Your task to perform on an android device: install app "Gmail" Image 0: 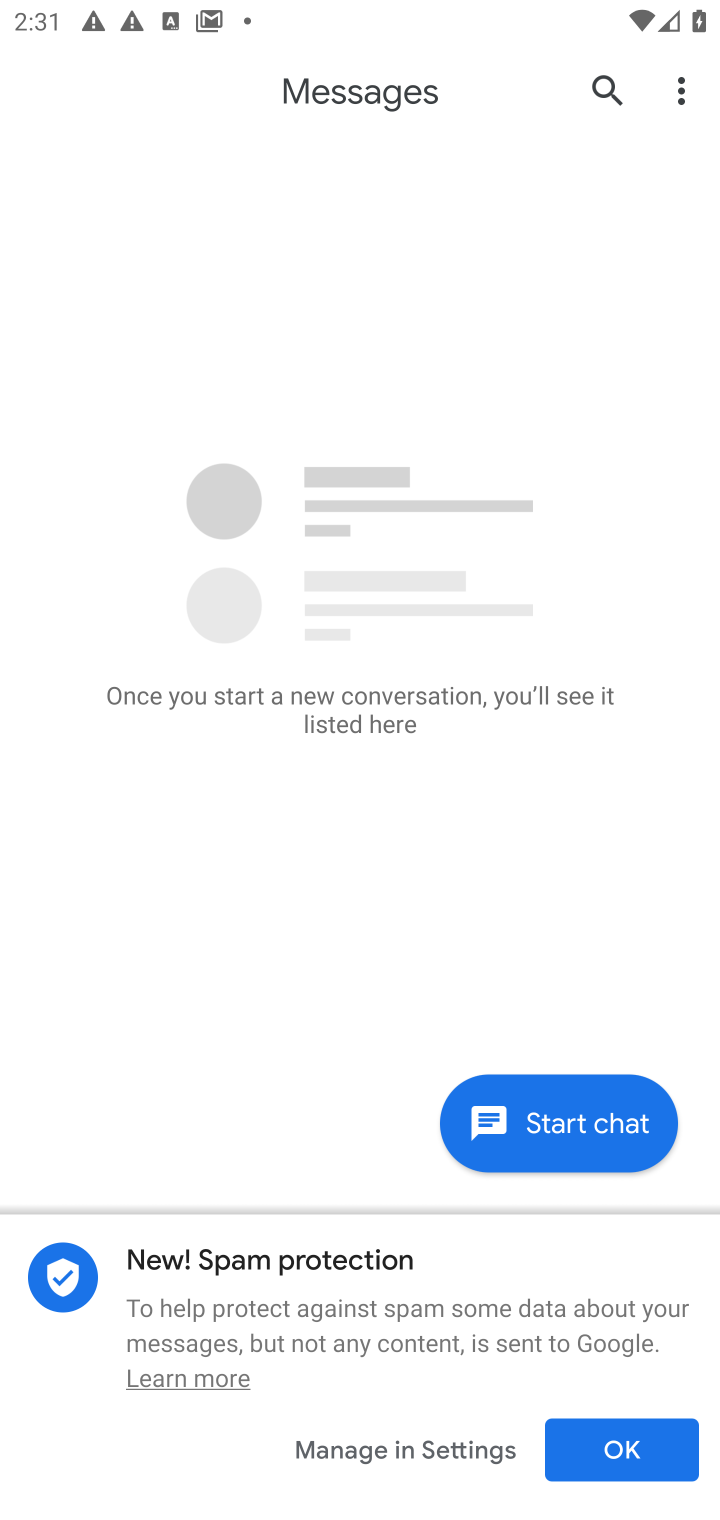
Step 0: press home button
Your task to perform on an android device: install app "Gmail" Image 1: 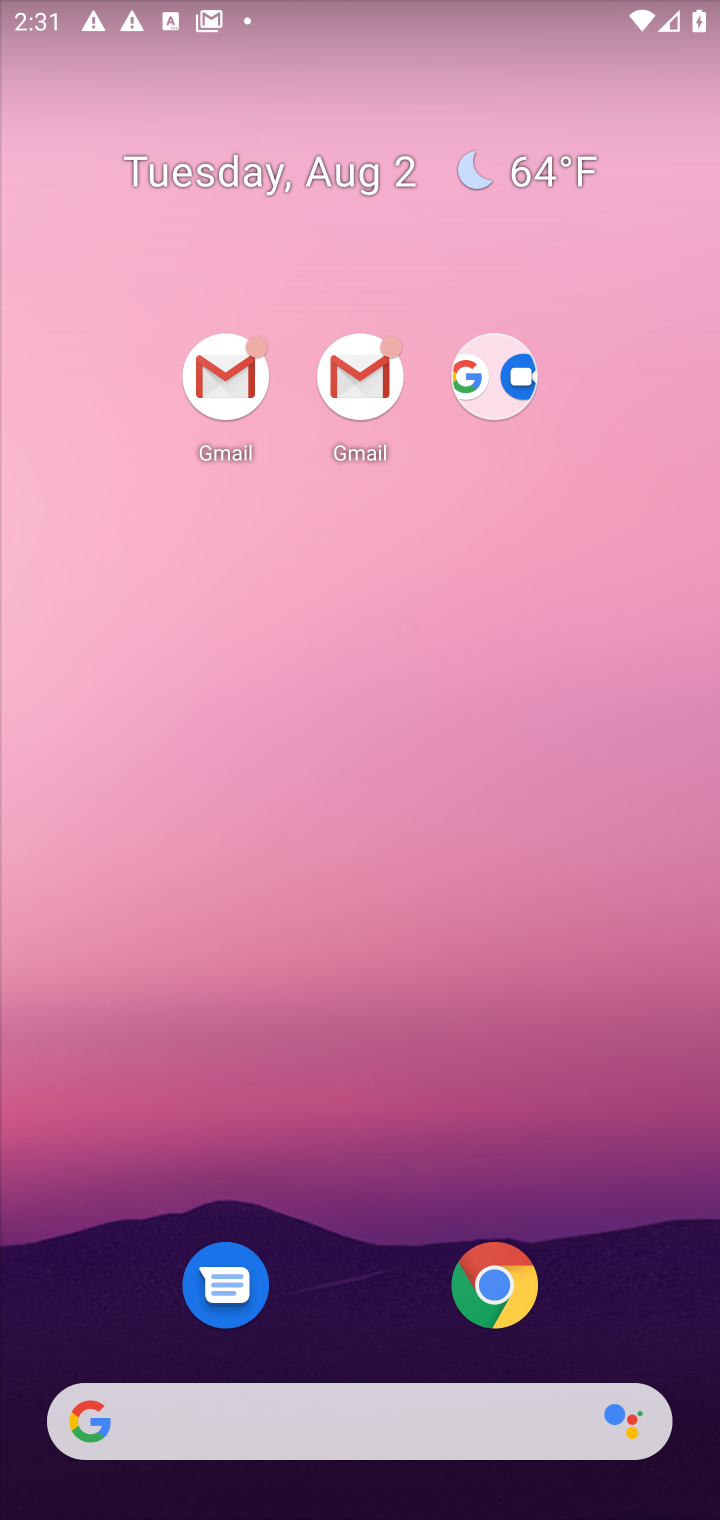
Step 1: drag from (383, 1297) to (522, 119)
Your task to perform on an android device: install app "Gmail" Image 2: 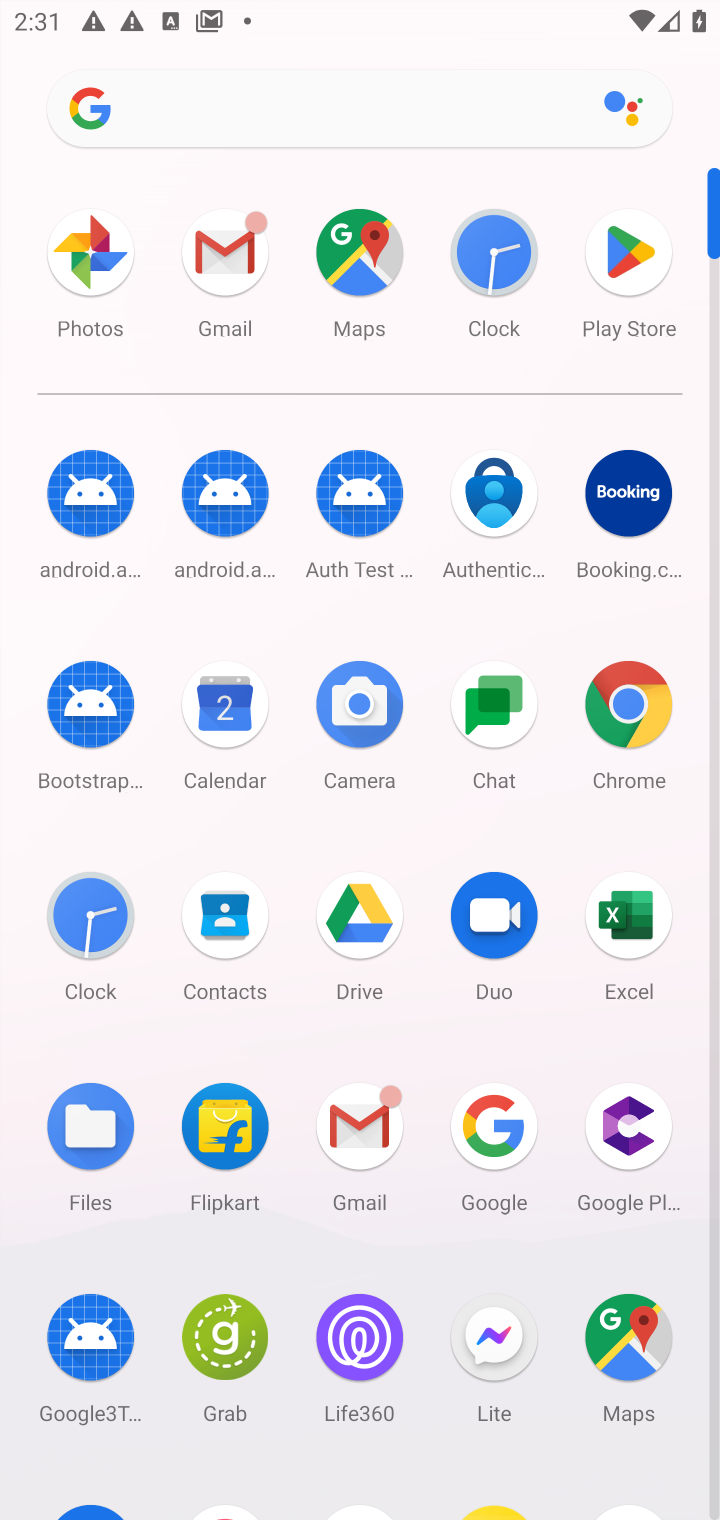
Step 2: drag from (441, 1084) to (499, 550)
Your task to perform on an android device: install app "Gmail" Image 3: 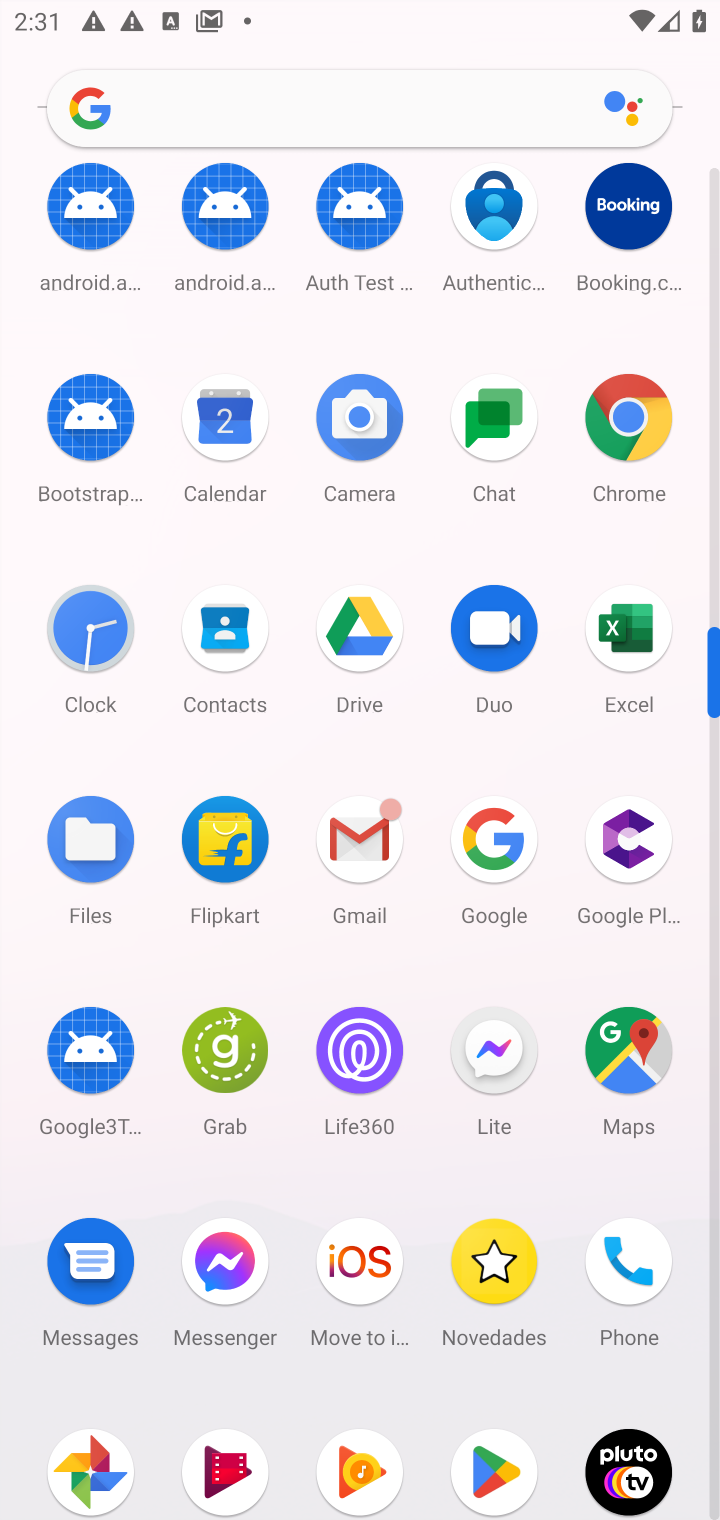
Step 3: click (508, 1466)
Your task to perform on an android device: install app "Gmail" Image 4: 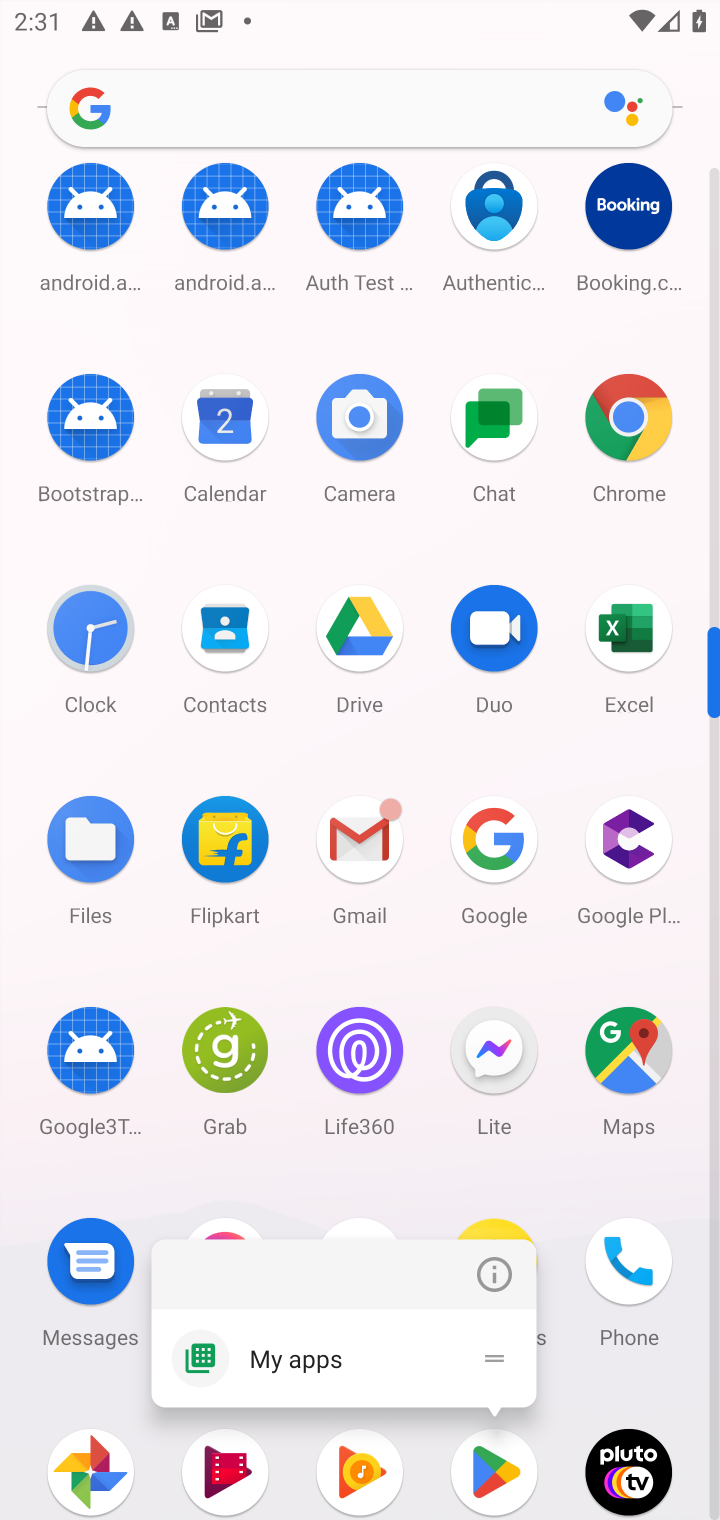
Step 4: click (489, 1451)
Your task to perform on an android device: install app "Gmail" Image 5: 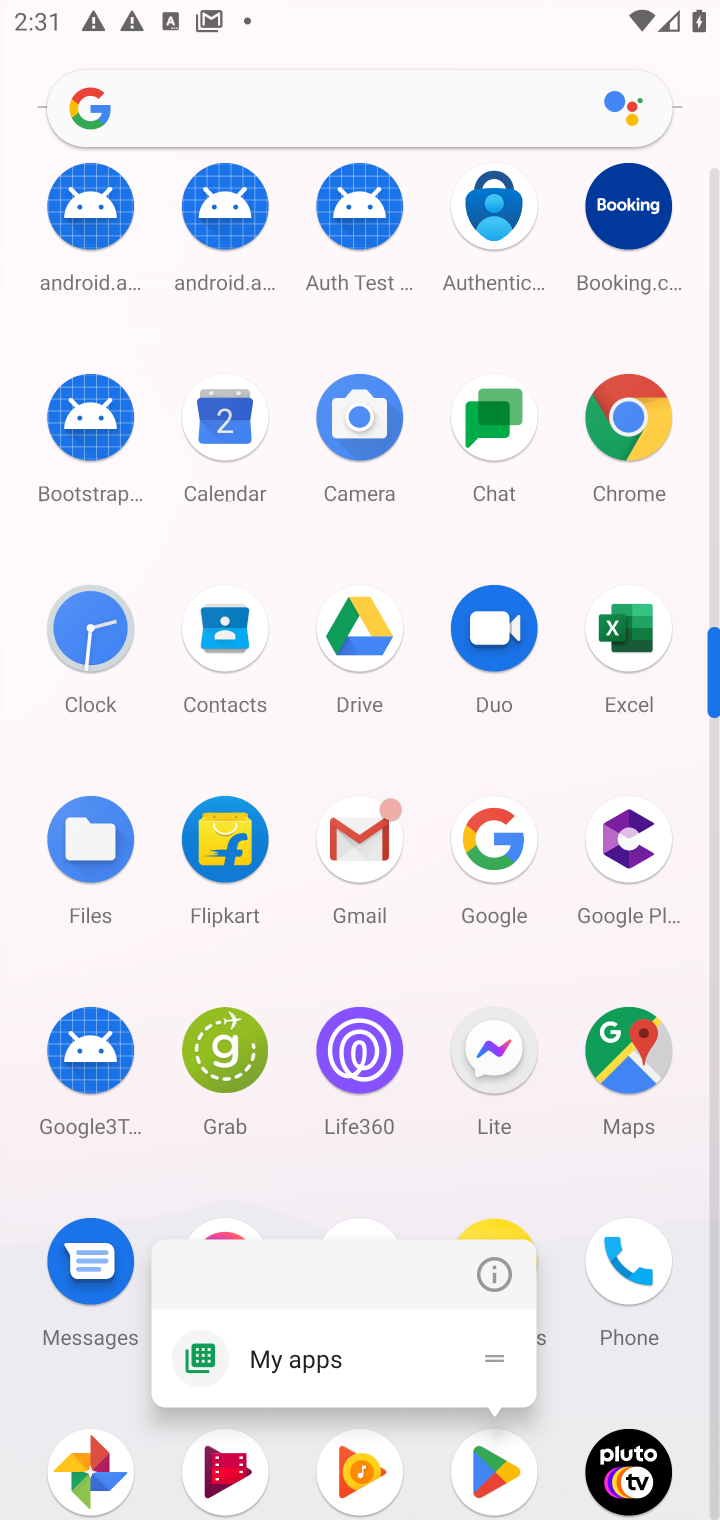
Step 5: click (494, 1475)
Your task to perform on an android device: install app "Gmail" Image 6: 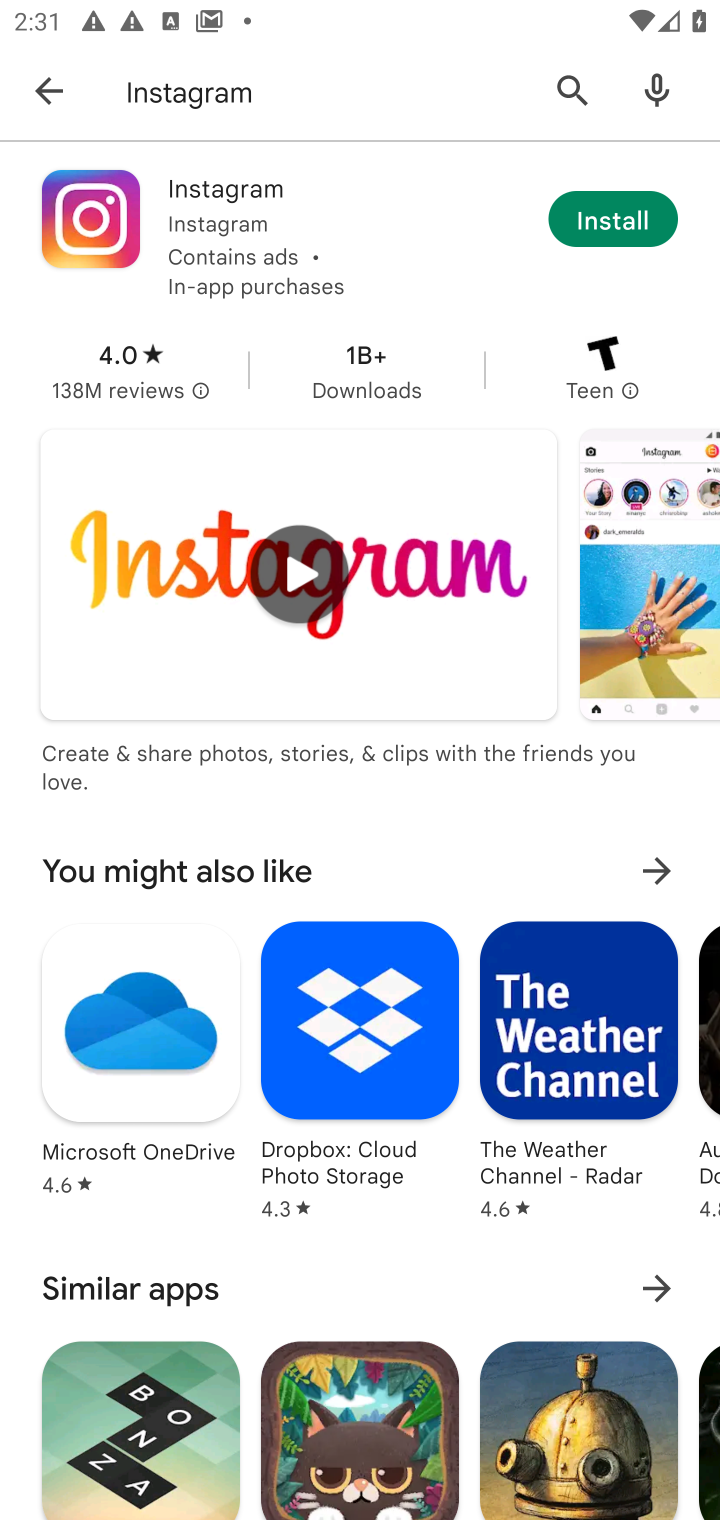
Step 6: click (409, 92)
Your task to perform on an android device: install app "Gmail" Image 7: 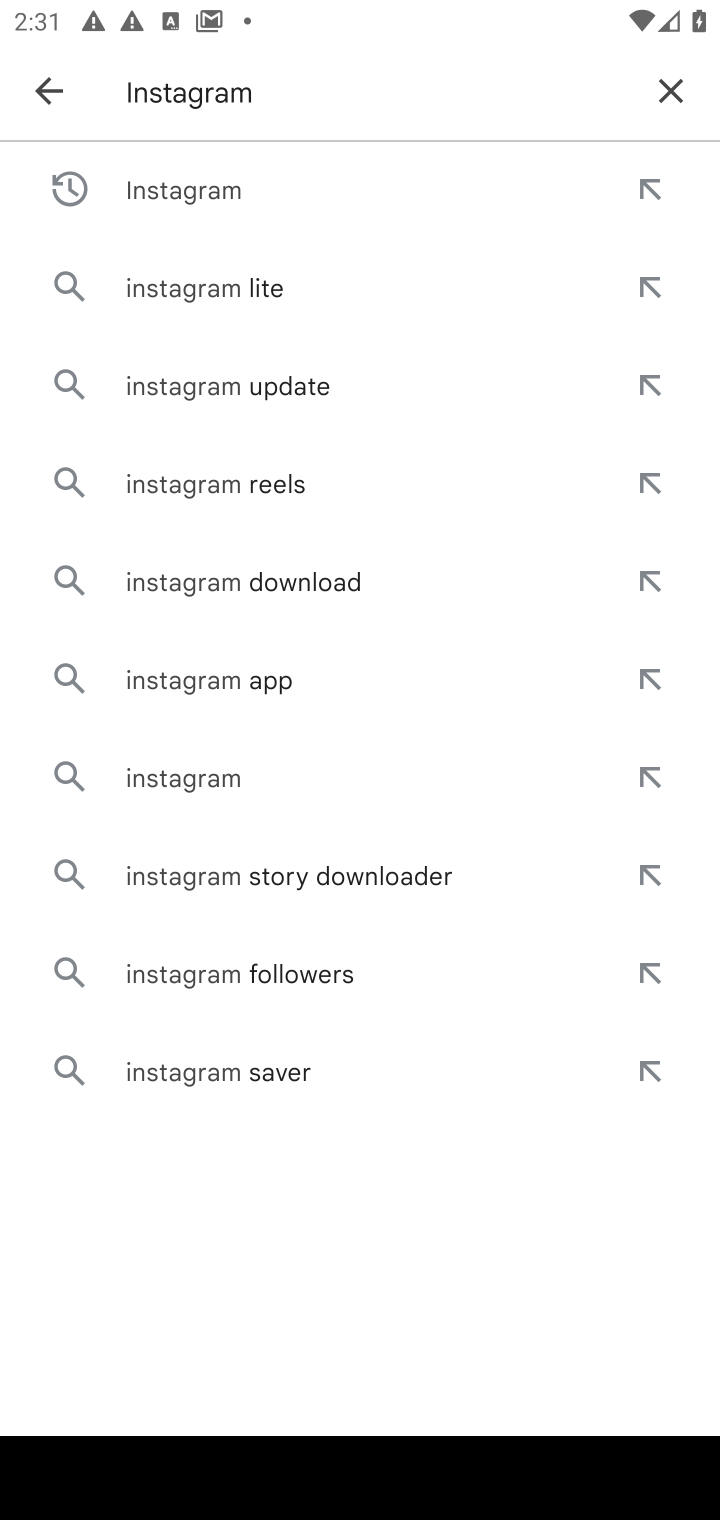
Step 7: click (665, 82)
Your task to perform on an android device: install app "Gmail" Image 8: 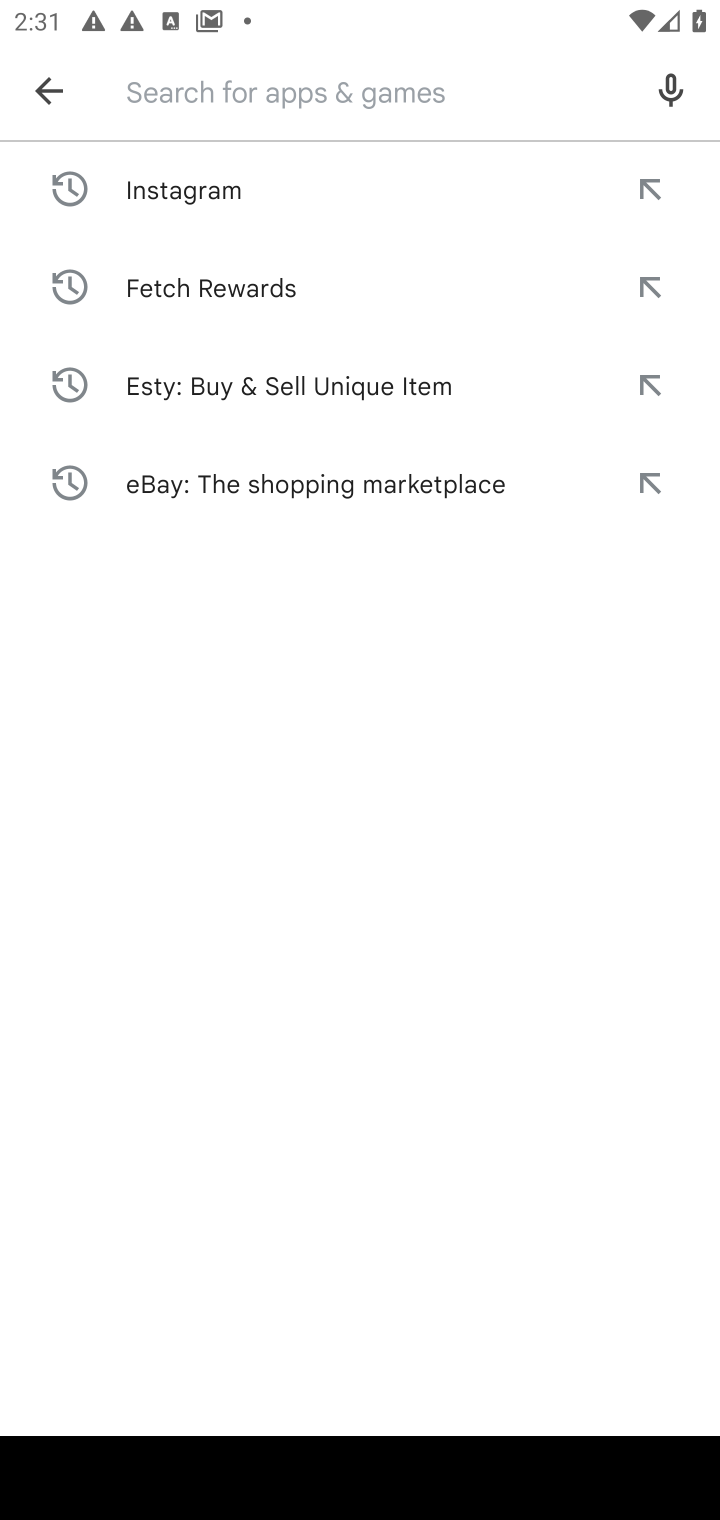
Step 8: type "Gmail"
Your task to perform on an android device: install app "Gmail" Image 9: 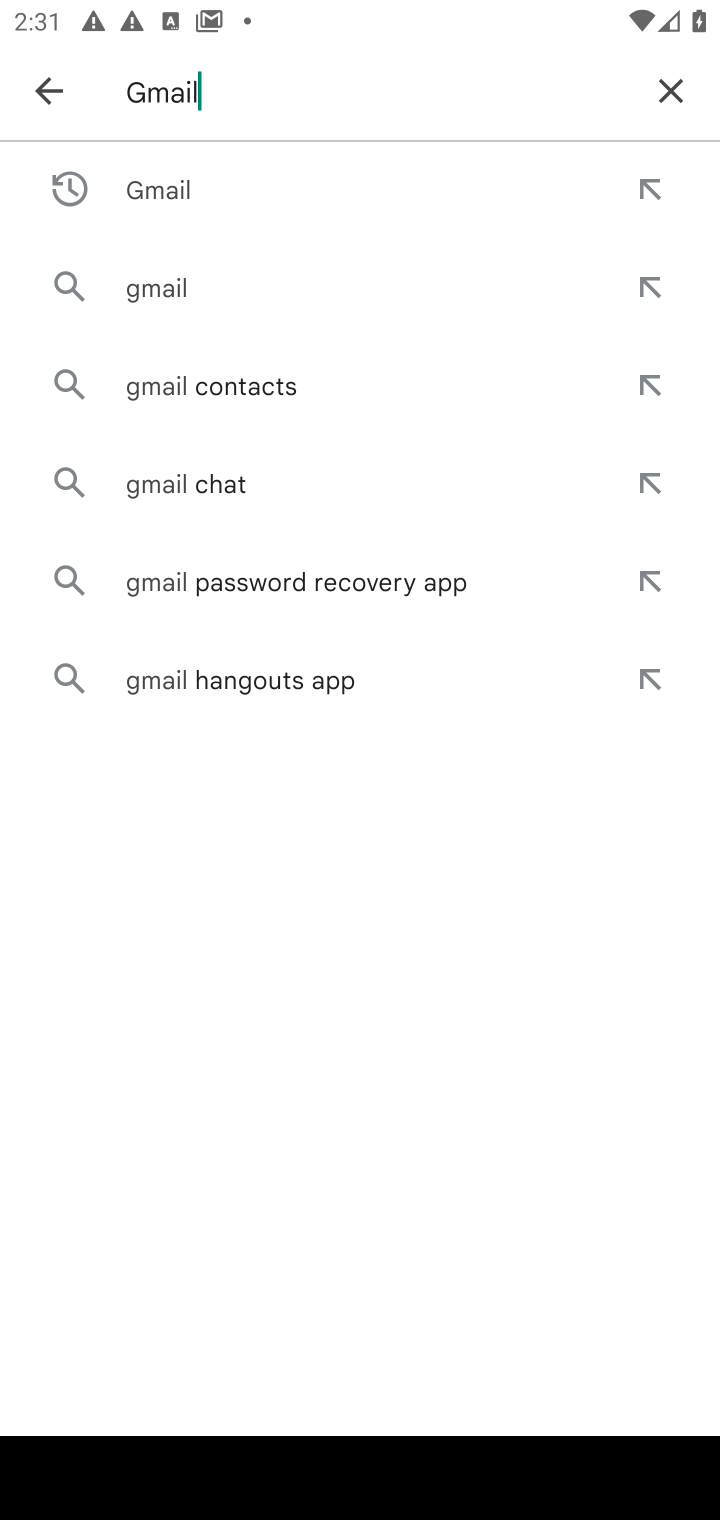
Step 9: click (142, 173)
Your task to perform on an android device: install app "Gmail" Image 10: 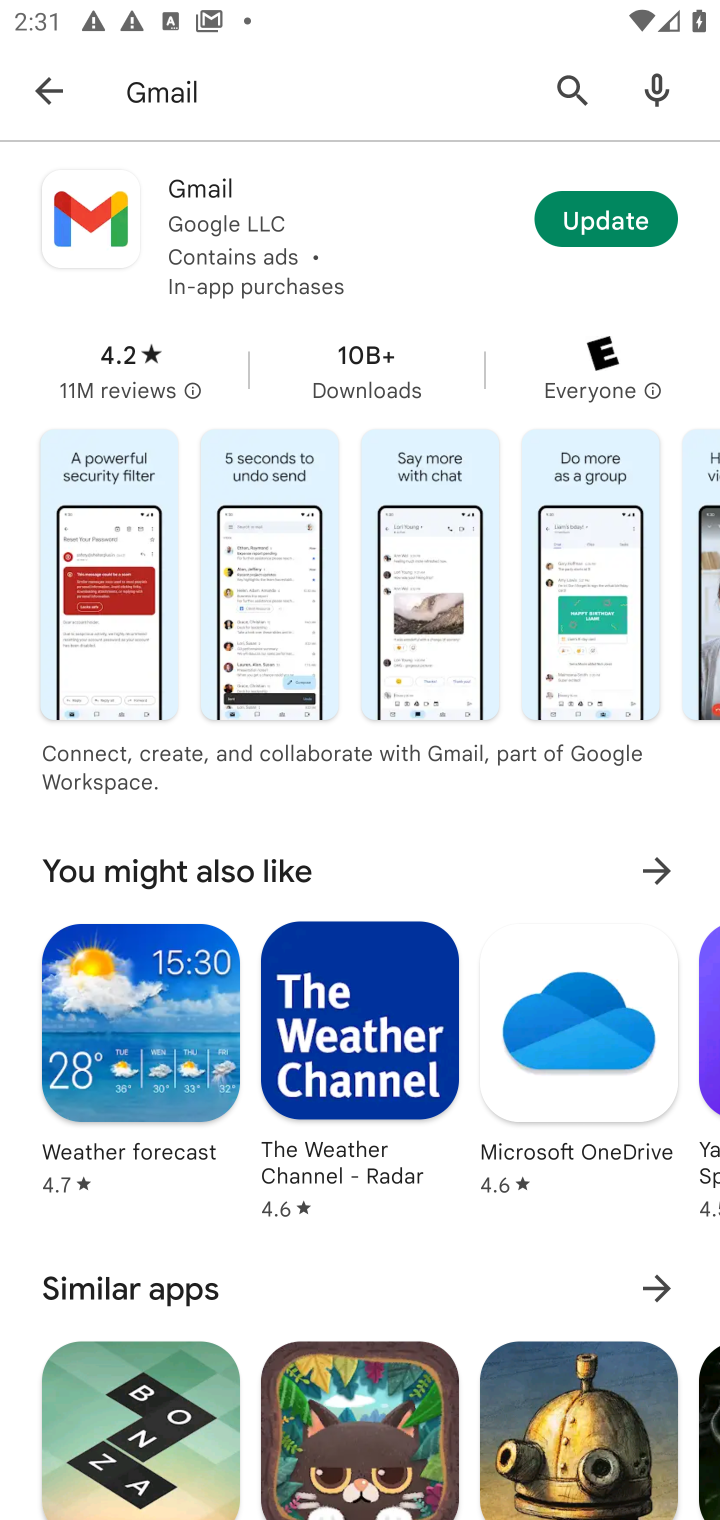
Step 10: click (259, 248)
Your task to perform on an android device: install app "Gmail" Image 11: 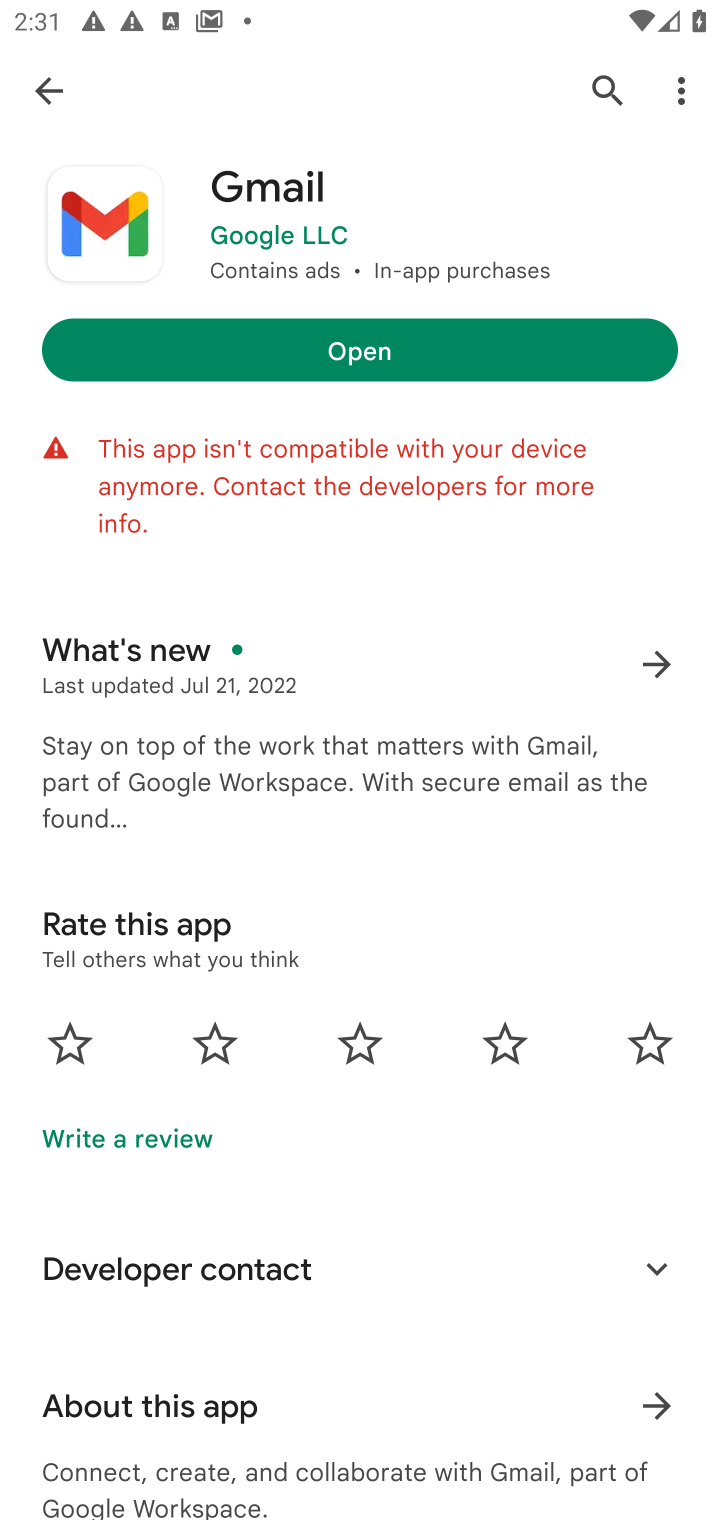
Step 11: task complete